Your task to perform on an android device: Open settings Image 0: 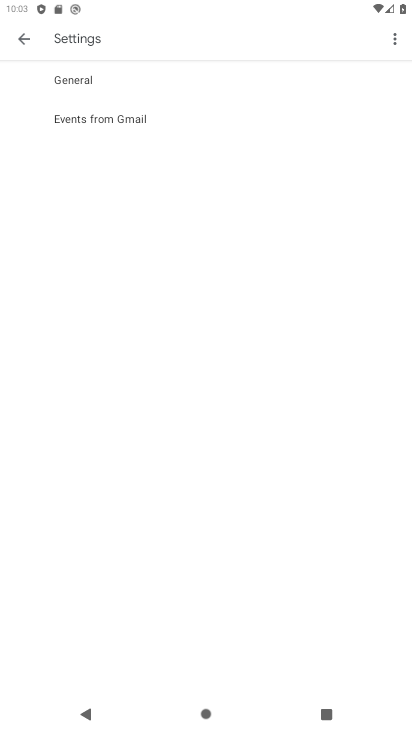
Step 0: press home button
Your task to perform on an android device: Open settings Image 1: 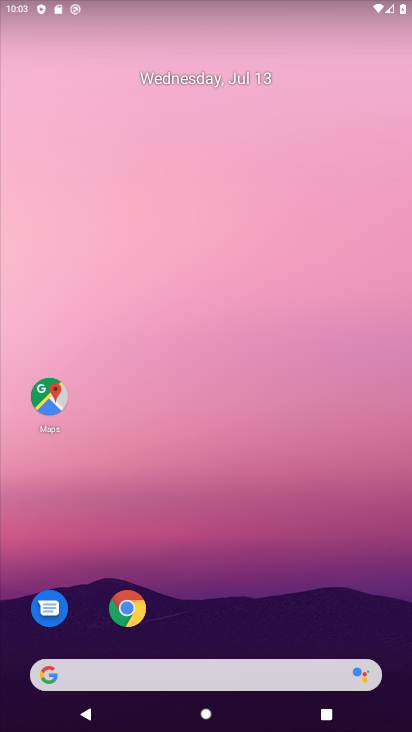
Step 1: drag from (254, 618) to (253, 130)
Your task to perform on an android device: Open settings Image 2: 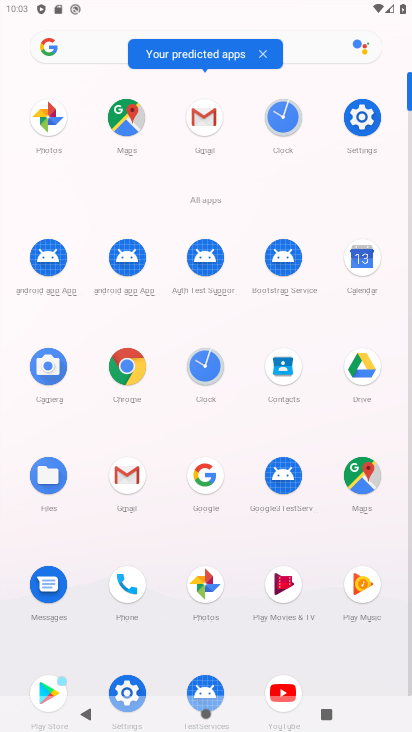
Step 2: click (364, 110)
Your task to perform on an android device: Open settings Image 3: 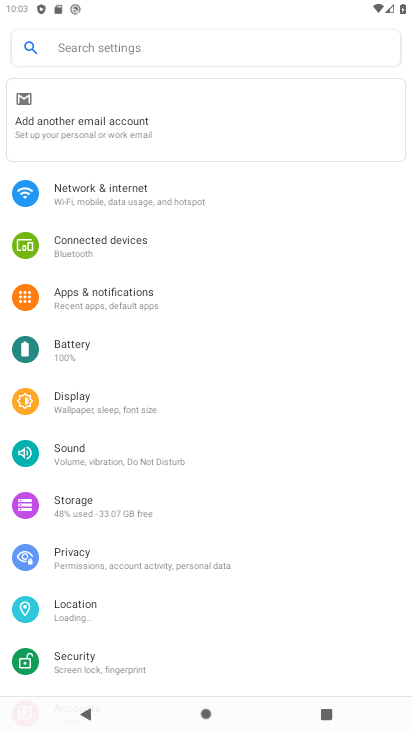
Step 3: task complete